Your task to perform on an android device: open a bookmark in the chrome app Image 0: 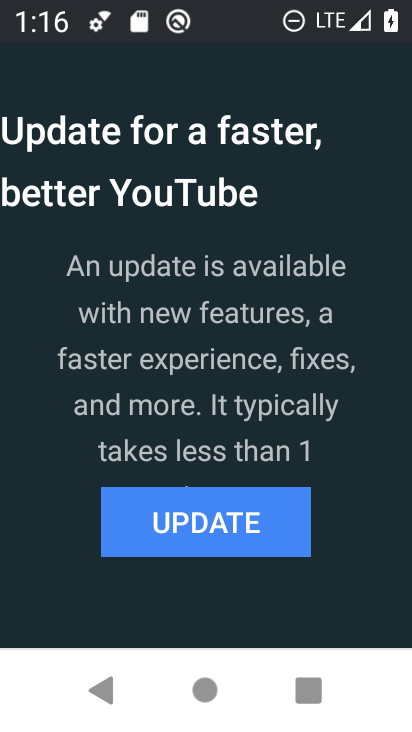
Step 0: press home button
Your task to perform on an android device: open a bookmark in the chrome app Image 1: 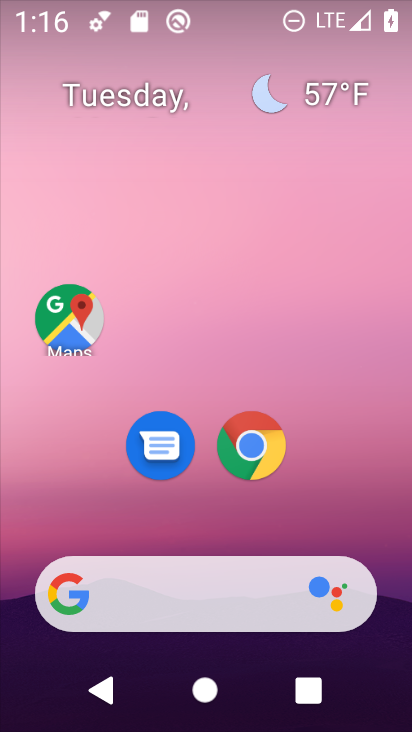
Step 1: drag from (381, 542) to (378, 166)
Your task to perform on an android device: open a bookmark in the chrome app Image 2: 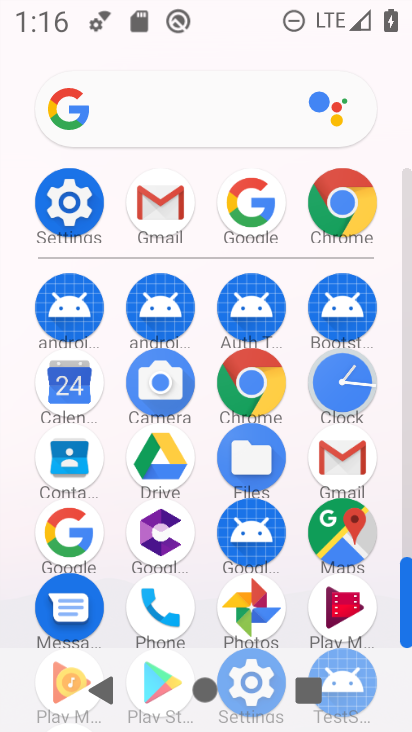
Step 2: click (269, 393)
Your task to perform on an android device: open a bookmark in the chrome app Image 3: 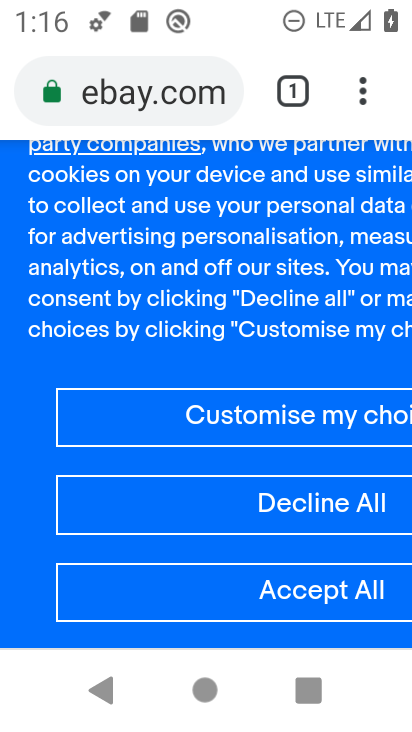
Step 3: click (365, 104)
Your task to perform on an android device: open a bookmark in the chrome app Image 4: 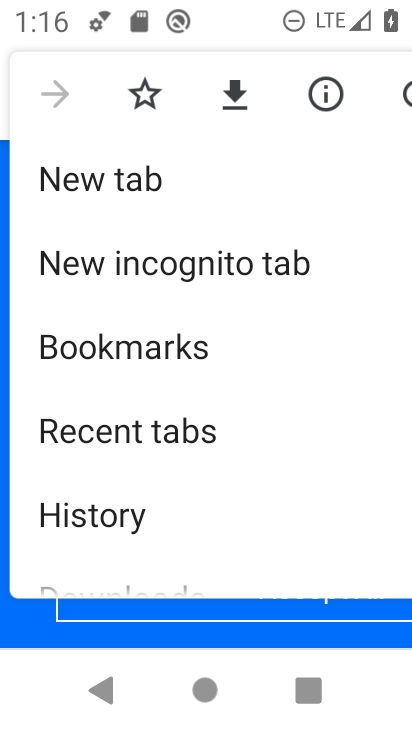
Step 4: click (196, 358)
Your task to perform on an android device: open a bookmark in the chrome app Image 5: 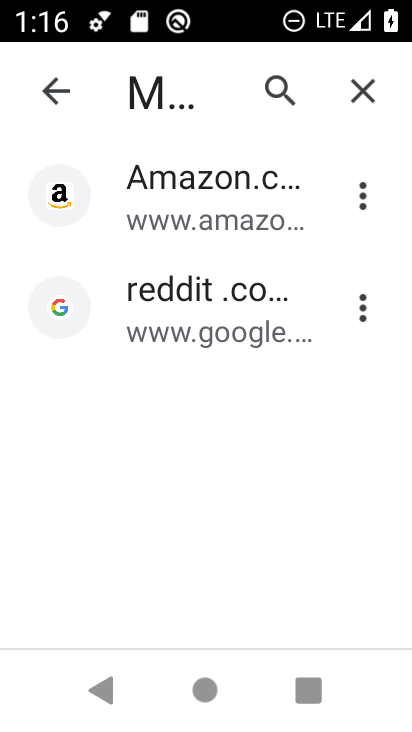
Step 5: click (218, 207)
Your task to perform on an android device: open a bookmark in the chrome app Image 6: 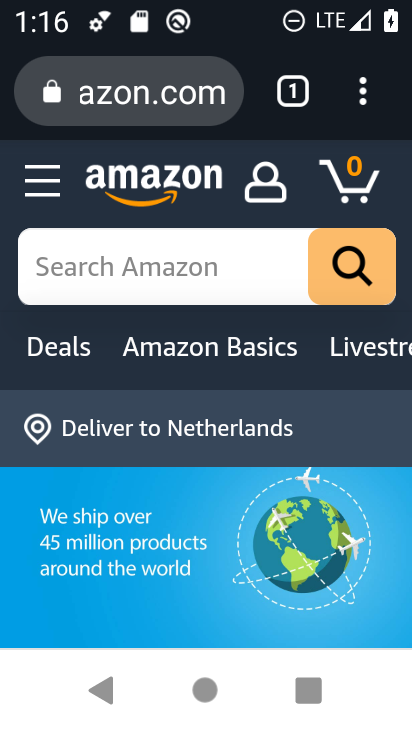
Step 6: task complete